Your task to perform on an android device: find snoozed emails in the gmail app Image 0: 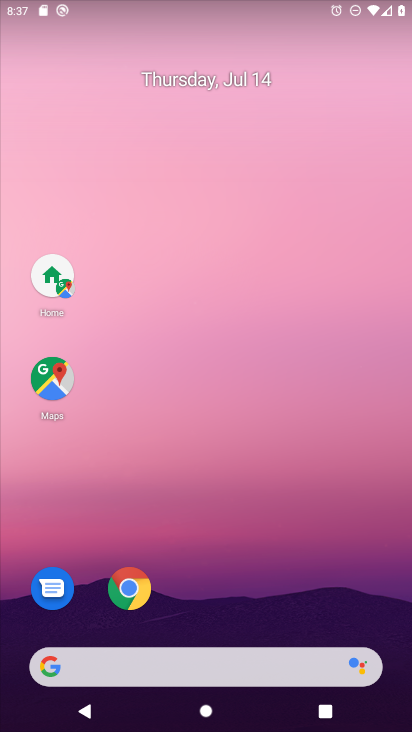
Step 0: drag from (85, 623) to (217, 195)
Your task to perform on an android device: find snoozed emails in the gmail app Image 1: 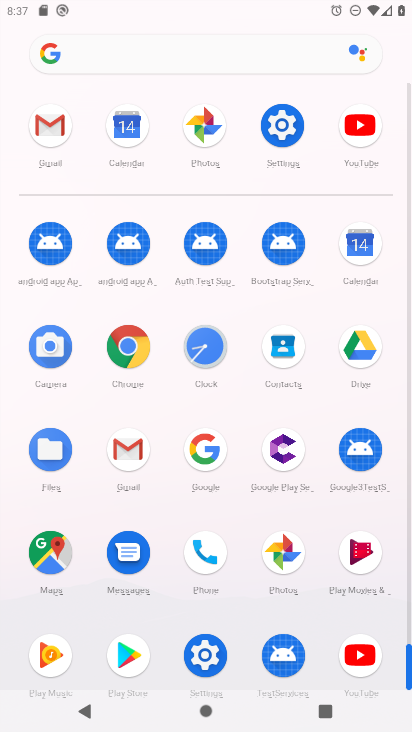
Step 1: click (147, 437)
Your task to perform on an android device: find snoozed emails in the gmail app Image 2: 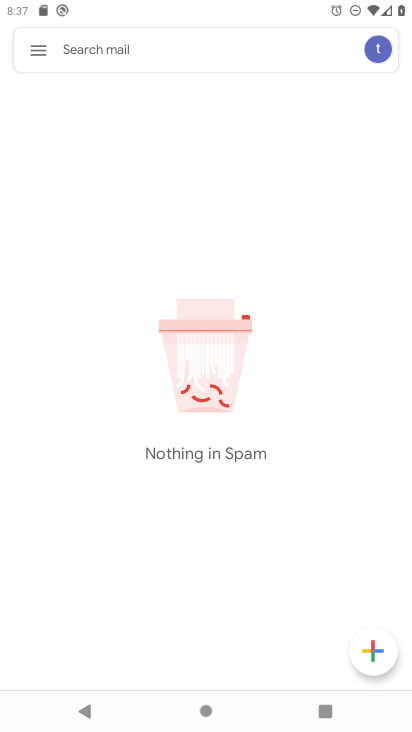
Step 2: click (43, 50)
Your task to perform on an android device: find snoozed emails in the gmail app Image 3: 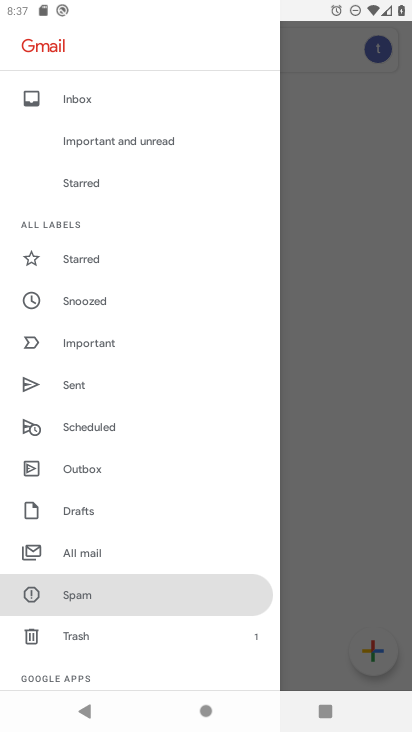
Step 3: click (99, 291)
Your task to perform on an android device: find snoozed emails in the gmail app Image 4: 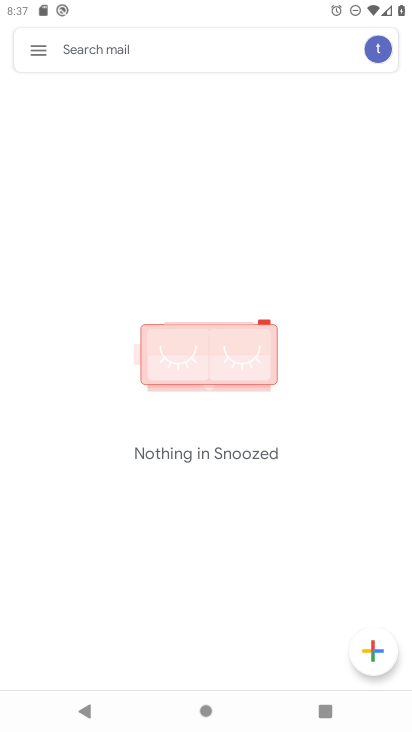
Step 4: task complete